Your task to perform on an android device: Go to display settings Image 0: 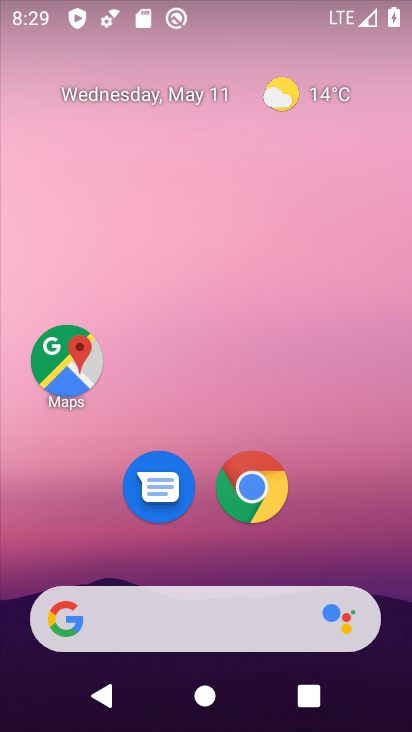
Step 0: drag from (276, 521) to (319, 206)
Your task to perform on an android device: Go to display settings Image 1: 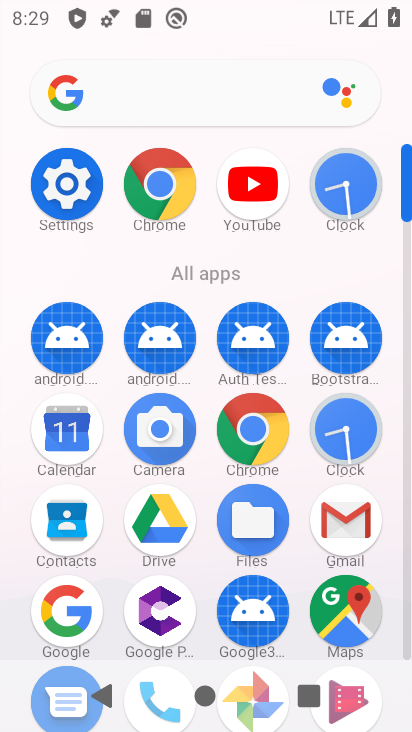
Step 1: click (45, 199)
Your task to perform on an android device: Go to display settings Image 2: 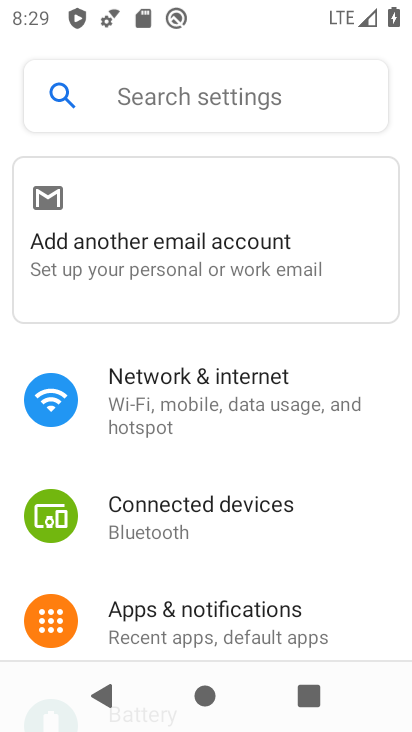
Step 2: drag from (234, 586) to (244, 401)
Your task to perform on an android device: Go to display settings Image 3: 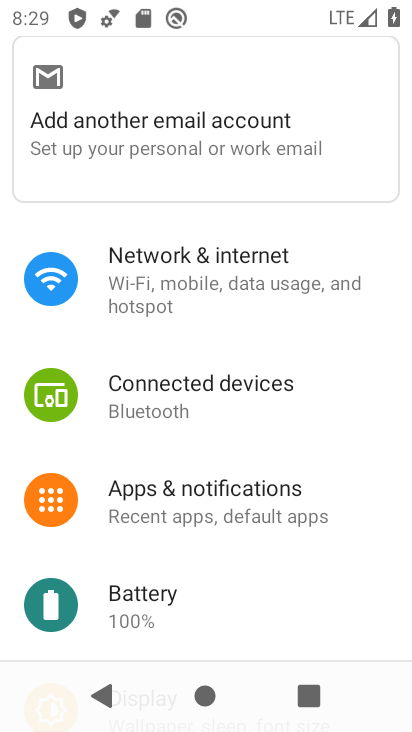
Step 3: drag from (190, 545) to (199, 351)
Your task to perform on an android device: Go to display settings Image 4: 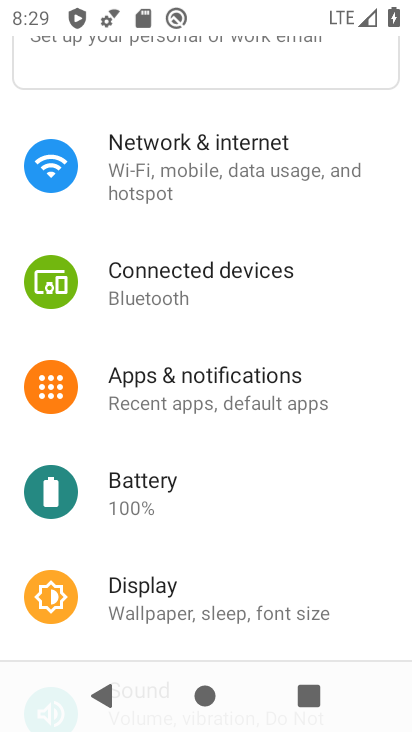
Step 4: click (163, 596)
Your task to perform on an android device: Go to display settings Image 5: 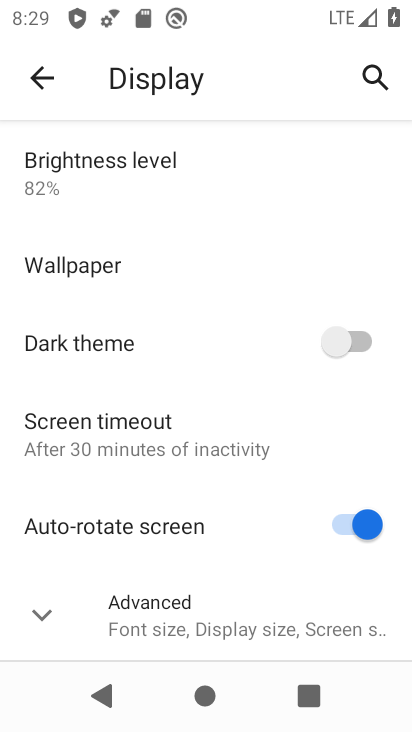
Step 5: task complete